Your task to perform on an android device: toggle priority inbox in the gmail app Image 0: 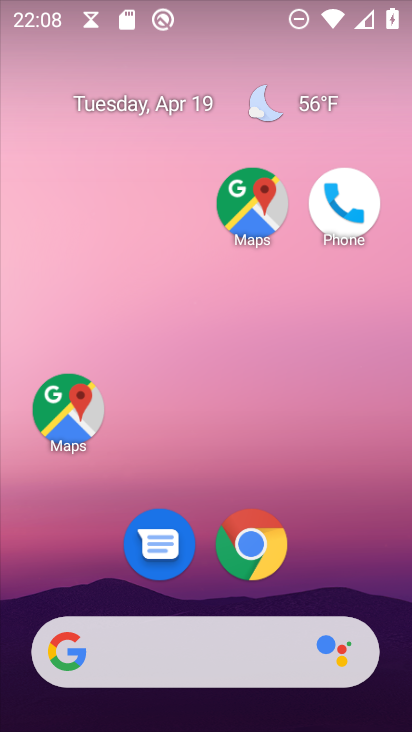
Step 0: drag from (174, 661) to (341, 45)
Your task to perform on an android device: toggle priority inbox in the gmail app Image 1: 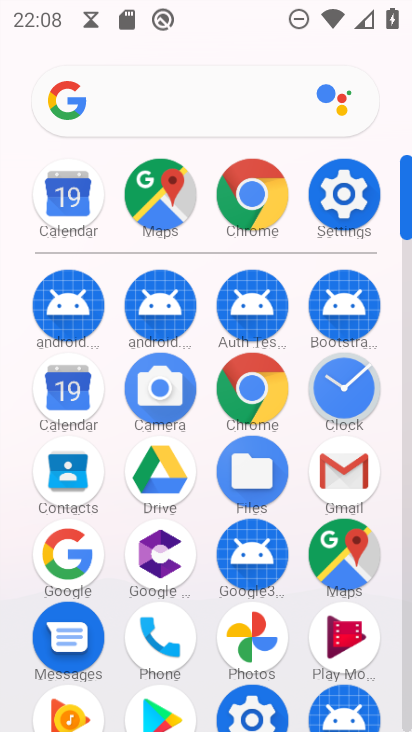
Step 1: click (338, 488)
Your task to perform on an android device: toggle priority inbox in the gmail app Image 2: 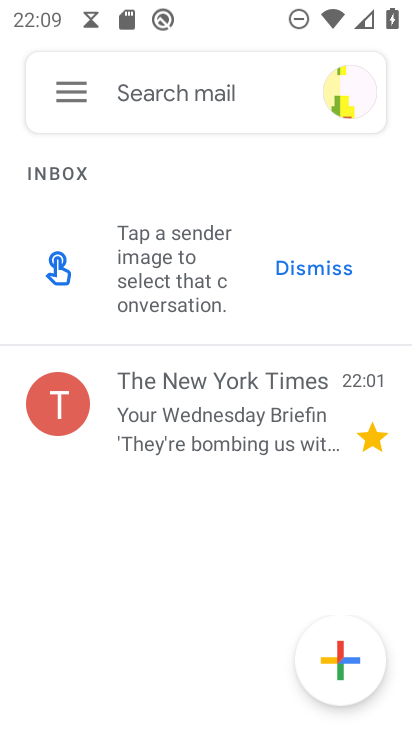
Step 2: click (68, 97)
Your task to perform on an android device: toggle priority inbox in the gmail app Image 3: 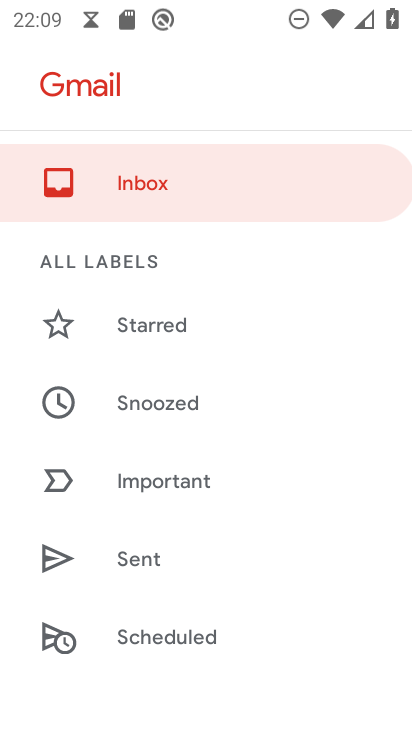
Step 3: drag from (153, 632) to (391, 63)
Your task to perform on an android device: toggle priority inbox in the gmail app Image 4: 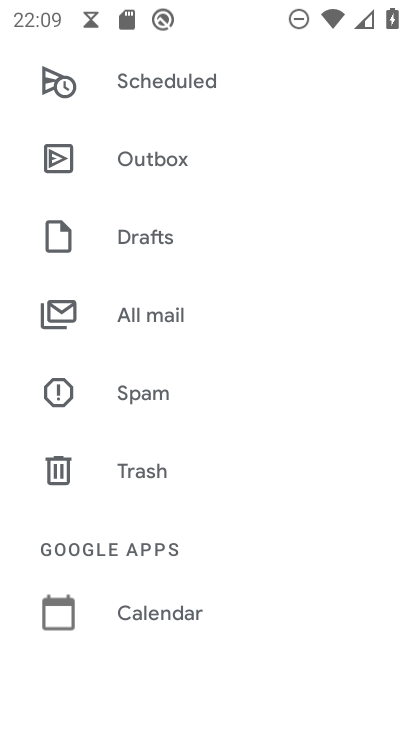
Step 4: drag from (209, 620) to (402, 85)
Your task to perform on an android device: toggle priority inbox in the gmail app Image 5: 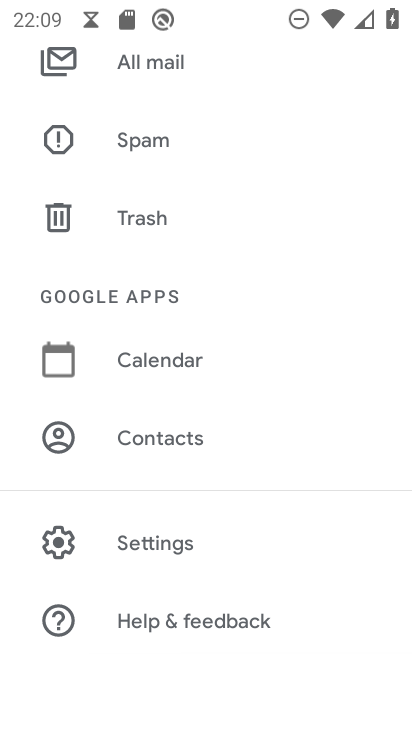
Step 5: click (164, 526)
Your task to perform on an android device: toggle priority inbox in the gmail app Image 6: 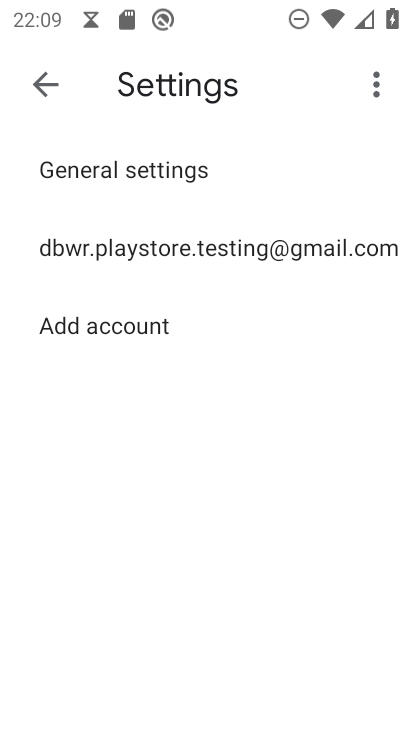
Step 6: click (221, 250)
Your task to perform on an android device: toggle priority inbox in the gmail app Image 7: 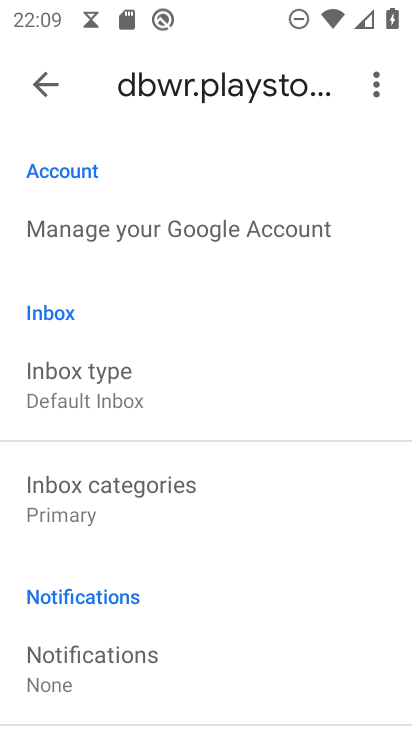
Step 7: click (111, 398)
Your task to perform on an android device: toggle priority inbox in the gmail app Image 8: 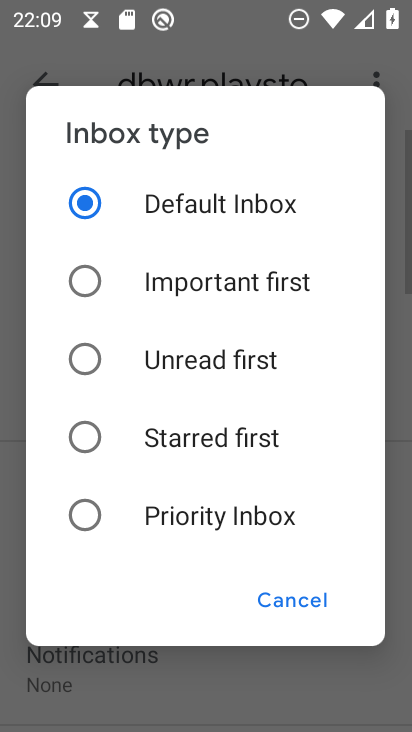
Step 8: click (87, 521)
Your task to perform on an android device: toggle priority inbox in the gmail app Image 9: 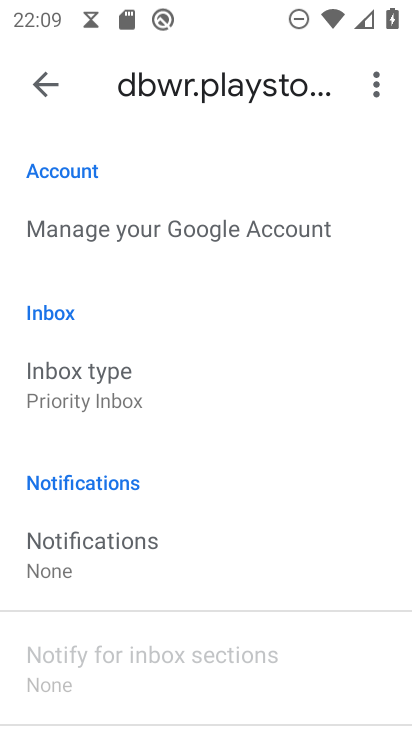
Step 9: task complete